Your task to perform on an android device: move an email to a new category in the gmail app Image 0: 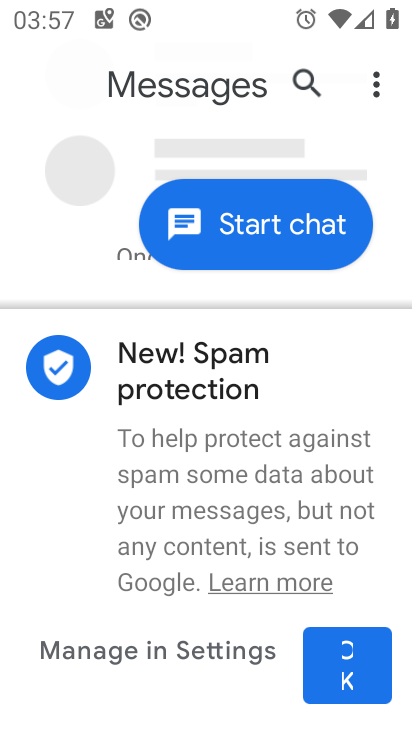
Step 0: press back button
Your task to perform on an android device: move an email to a new category in the gmail app Image 1: 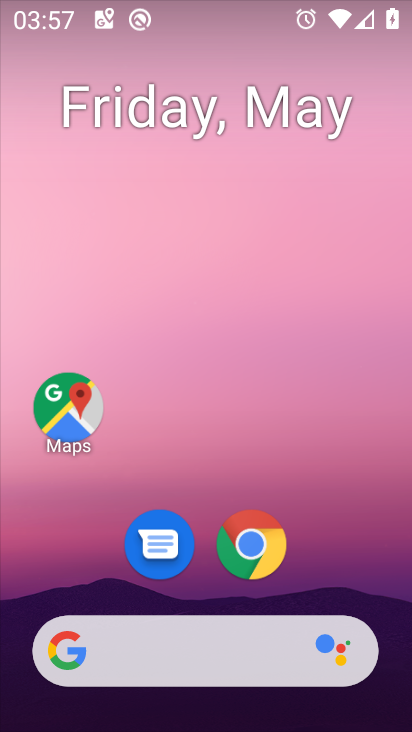
Step 1: drag from (323, 533) to (199, 145)
Your task to perform on an android device: move an email to a new category in the gmail app Image 2: 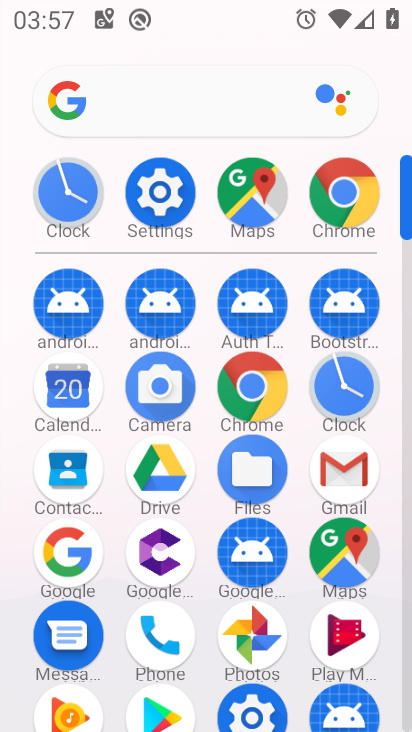
Step 2: click (346, 462)
Your task to perform on an android device: move an email to a new category in the gmail app Image 3: 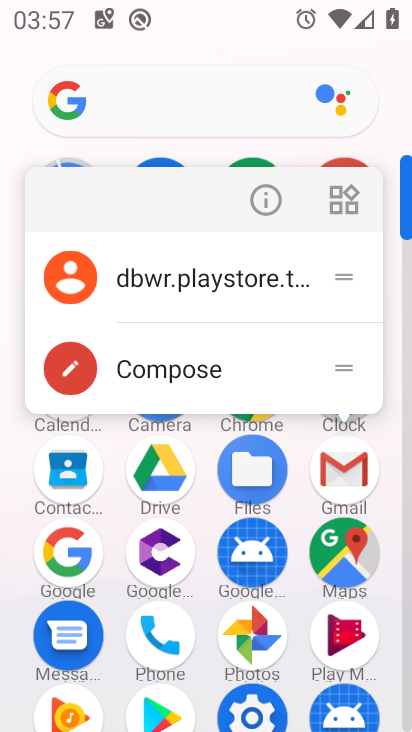
Step 3: click (346, 467)
Your task to perform on an android device: move an email to a new category in the gmail app Image 4: 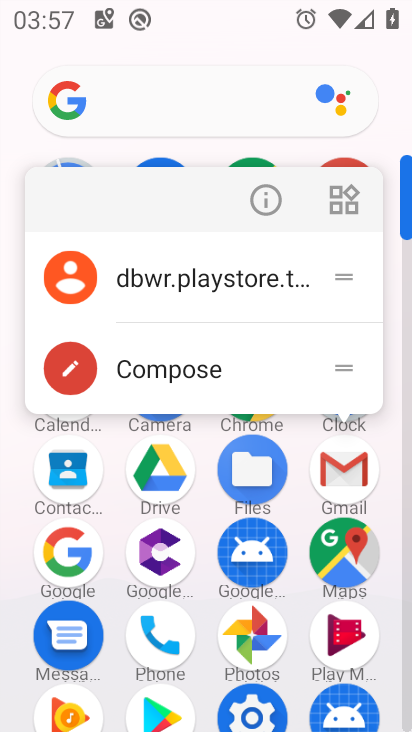
Step 4: click (346, 467)
Your task to perform on an android device: move an email to a new category in the gmail app Image 5: 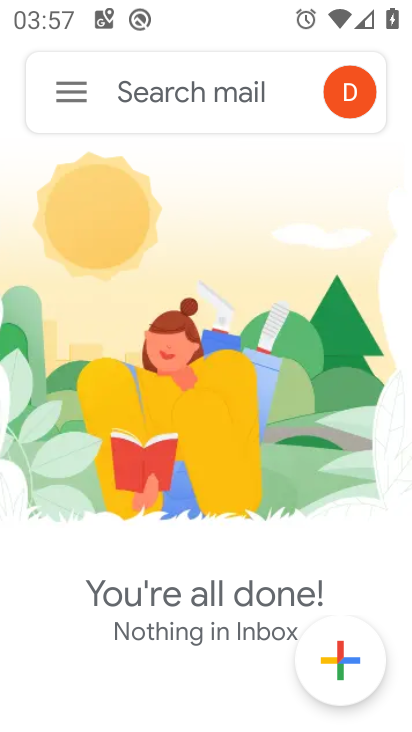
Step 5: click (349, 466)
Your task to perform on an android device: move an email to a new category in the gmail app Image 6: 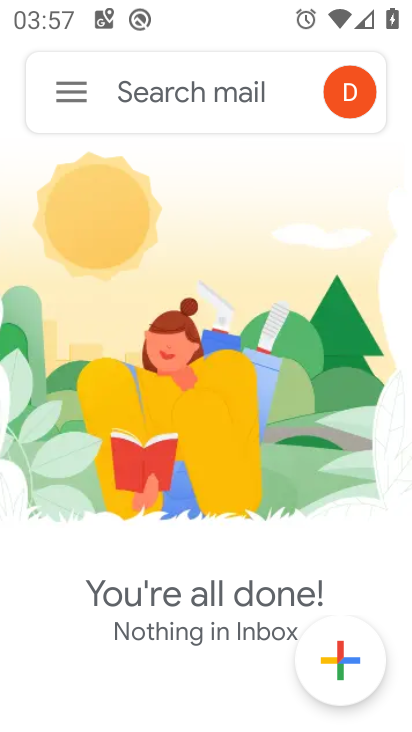
Step 6: click (349, 466)
Your task to perform on an android device: move an email to a new category in the gmail app Image 7: 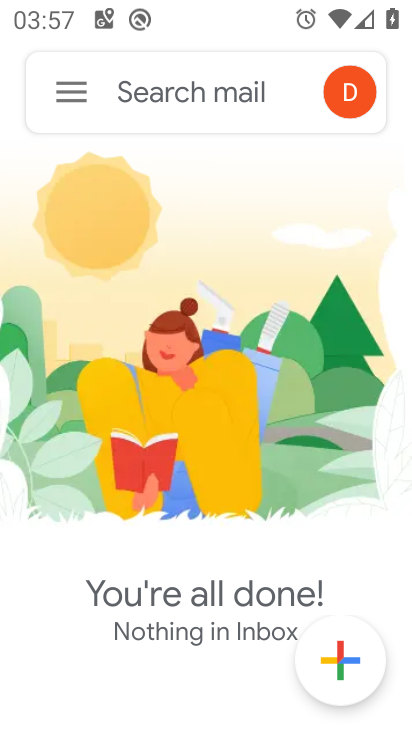
Step 7: click (62, 82)
Your task to perform on an android device: move an email to a new category in the gmail app Image 8: 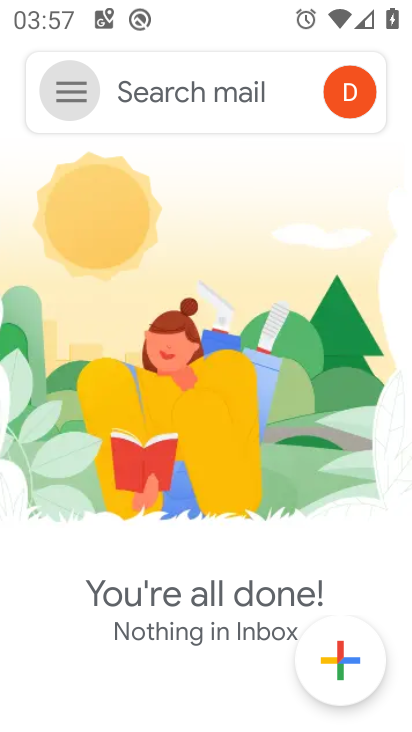
Step 8: click (62, 82)
Your task to perform on an android device: move an email to a new category in the gmail app Image 9: 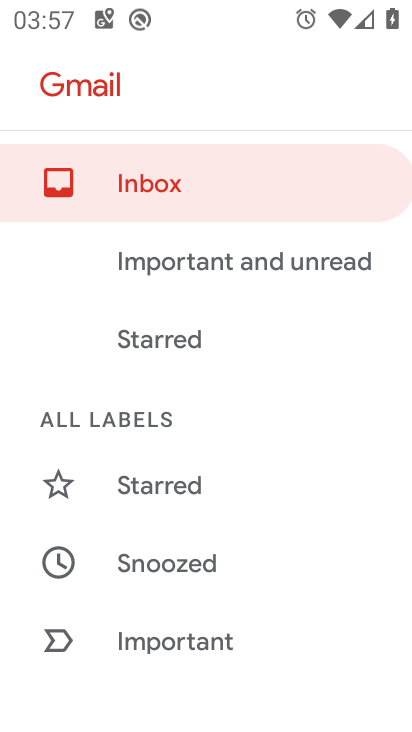
Step 9: drag from (186, 578) to (192, 107)
Your task to perform on an android device: move an email to a new category in the gmail app Image 10: 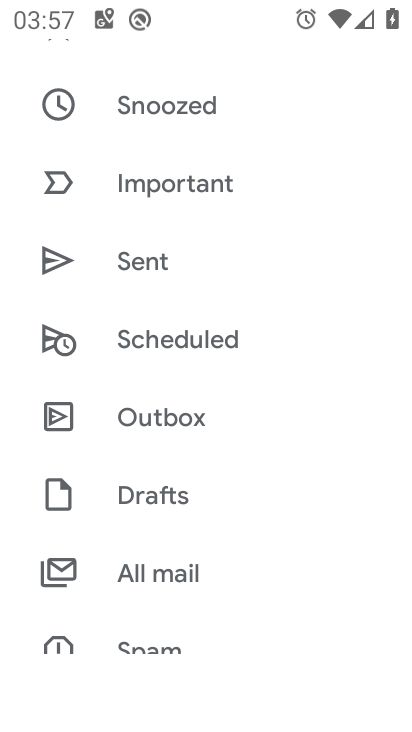
Step 10: drag from (220, 475) to (231, 113)
Your task to perform on an android device: move an email to a new category in the gmail app Image 11: 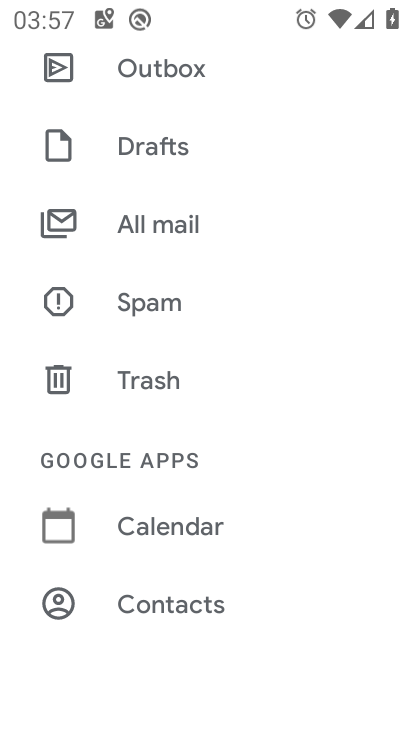
Step 11: drag from (257, 507) to (266, 105)
Your task to perform on an android device: move an email to a new category in the gmail app Image 12: 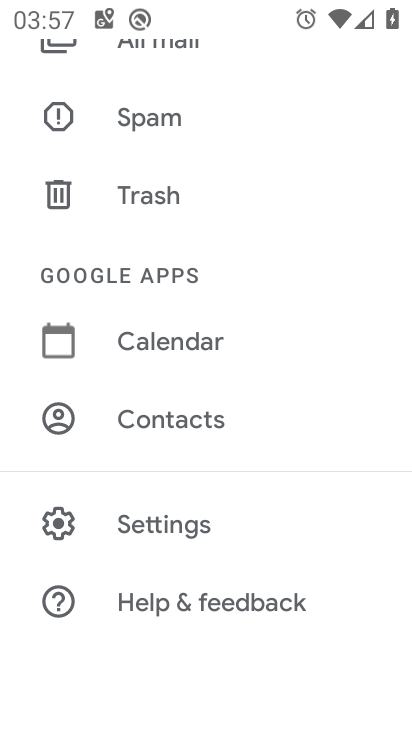
Step 12: drag from (169, 124) to (209, 560)
Your task to perform on an android device: move an email to a new category in the gmail app Image 13: 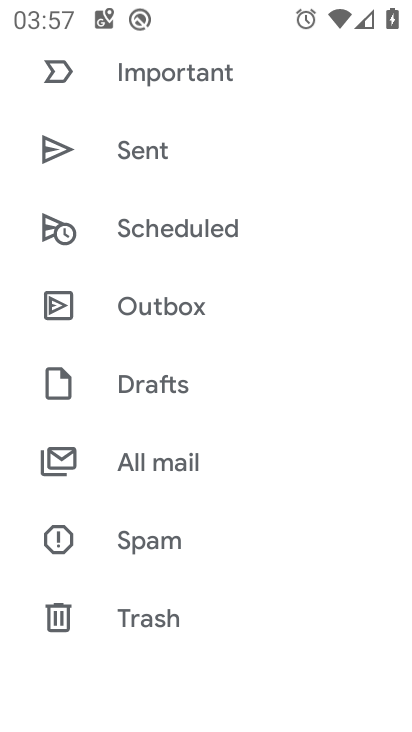
Step 13: click (152, 461)
Your task to perform on an android device: move an email to a new category in the gmail app Image 14: 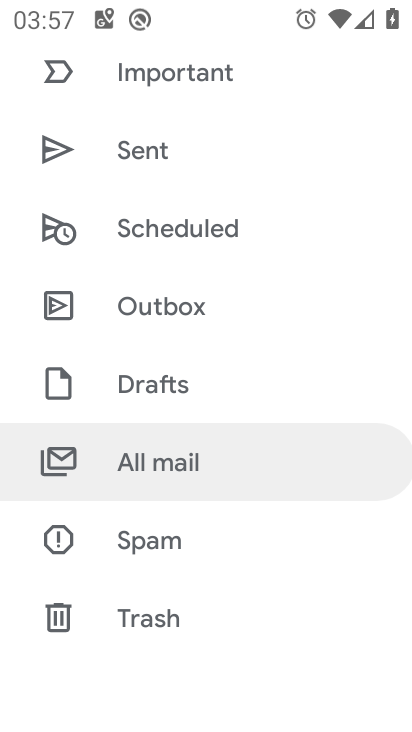
Step 14: click (152, 460)
Your task to perform on an android device: move an email to a new category in the gmail app Image 15: 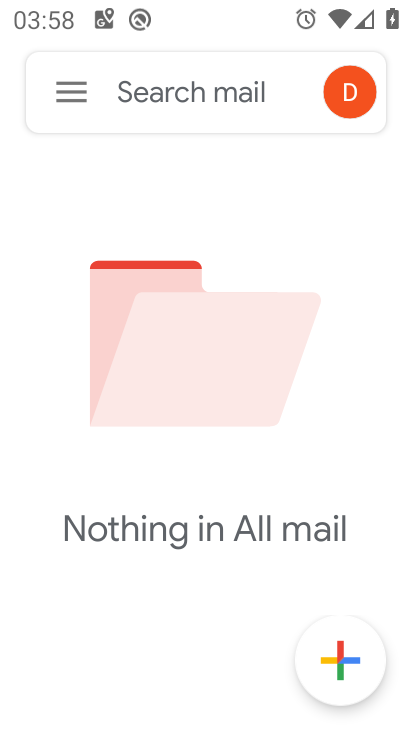
Step 15: task complete